Your task to perform on an android device: turn on the 24-hour format for clock Image 0: 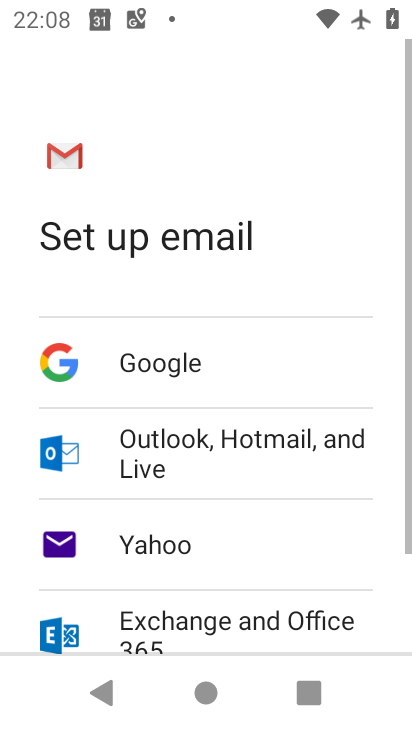
Step 0: press home button
Your task to perform on an android device: turn on the 24-hour format for clock Image 1: 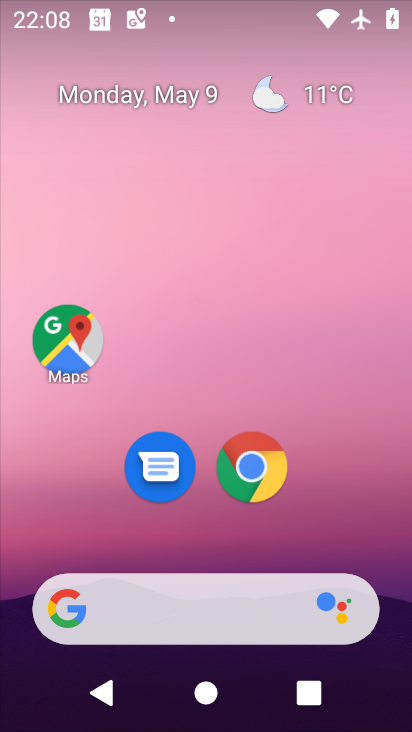
Step 1: drag from (325, 446) to (316, 165)
Your task to perform on an android device: turn on the 24-hour format for clock Image 2: 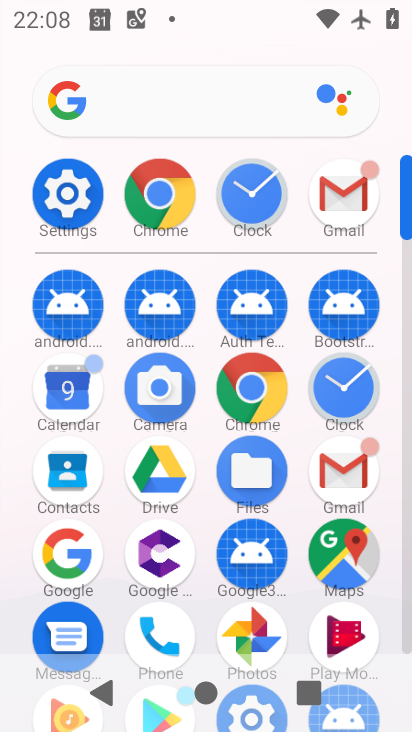
Step 2: click (340, 383)
Your task to perform on an android device: turn on the 24-hour format for clock Image 3: 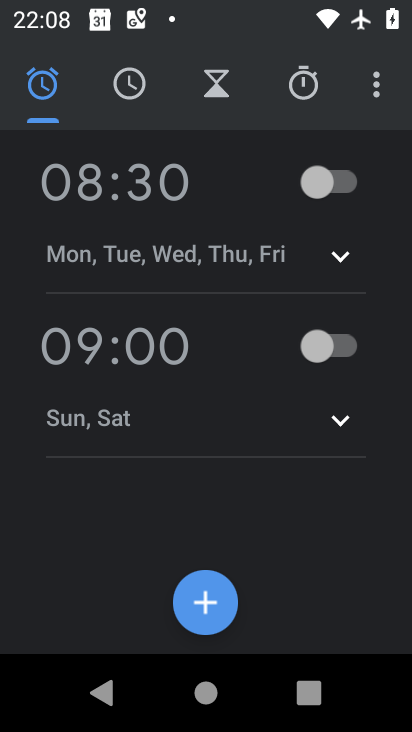
Step 3: click (371, 83)
Your task to perform on an android device: turn on the 24-hour format for clock Image 4: 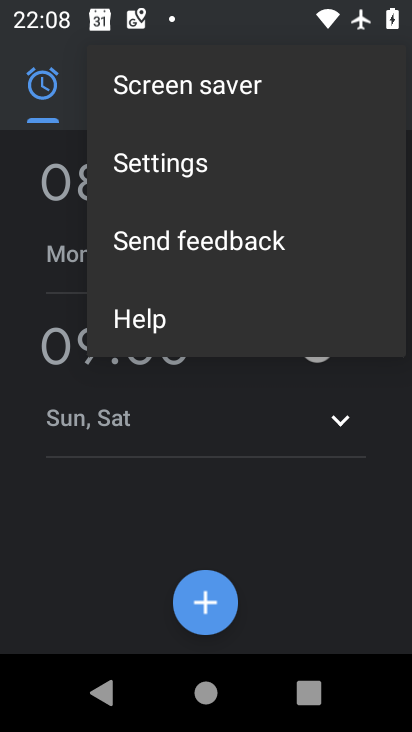
Step 4: click (191, 160)
Your task to perform on an android device: turn on the 24-hour format for clock Image 5: 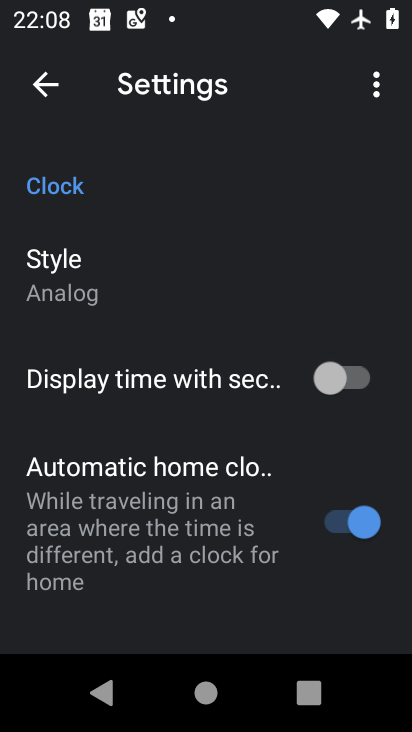
Step 5: drag from (174, 543) to (172, 157)
Your task to perform on an android device: turn on the 24-hour format for clock Image 6: 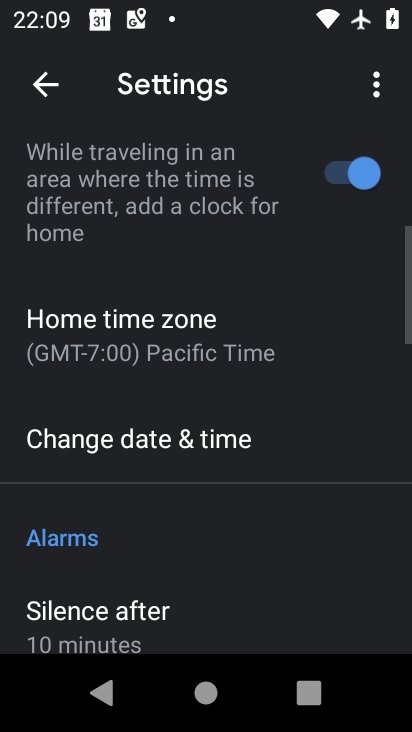
Step 6: drag from (175, 567) to (214, 181)
Your task to perform on an android device: turn on the 24-hour format for clock Image 7: 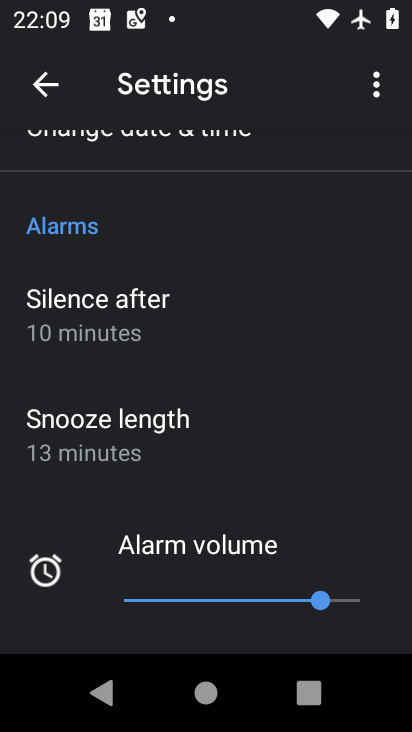
Step 7: click (200, 139)
Your task to perform on an android device: turn on the 24-hour format for clock Image 8: 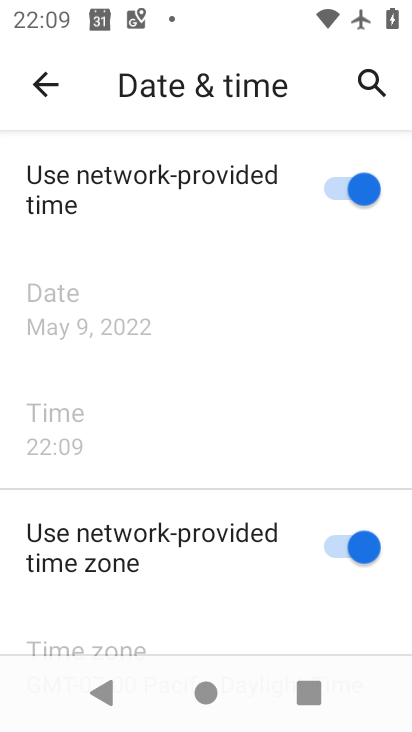
Step 8: task complete